Your task to perform on an android device: uninstall "PlayWell" Image 0: 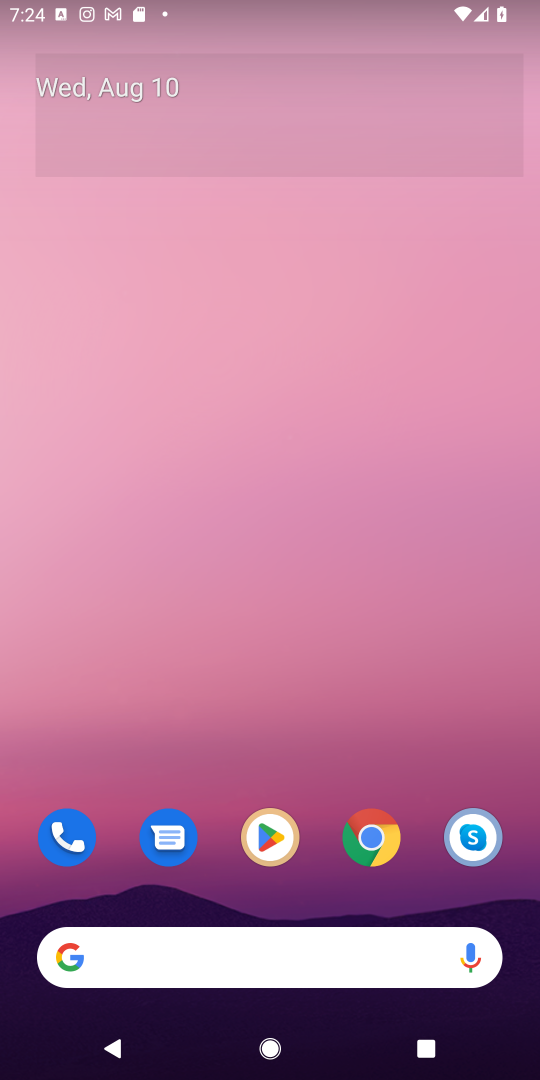
Step 0: click (266, 847)
Your task to perform on an android device: uninstall "PlayWell" Image 1: 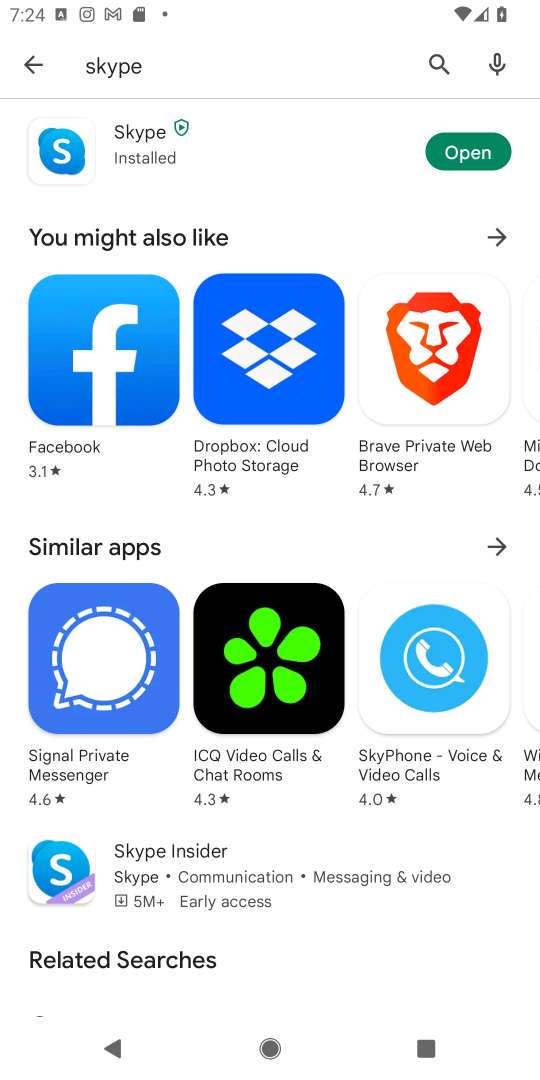
Step 1: click (431, 68)
Your task to perform on an android device: uninstall "PlayWell" Image 2: 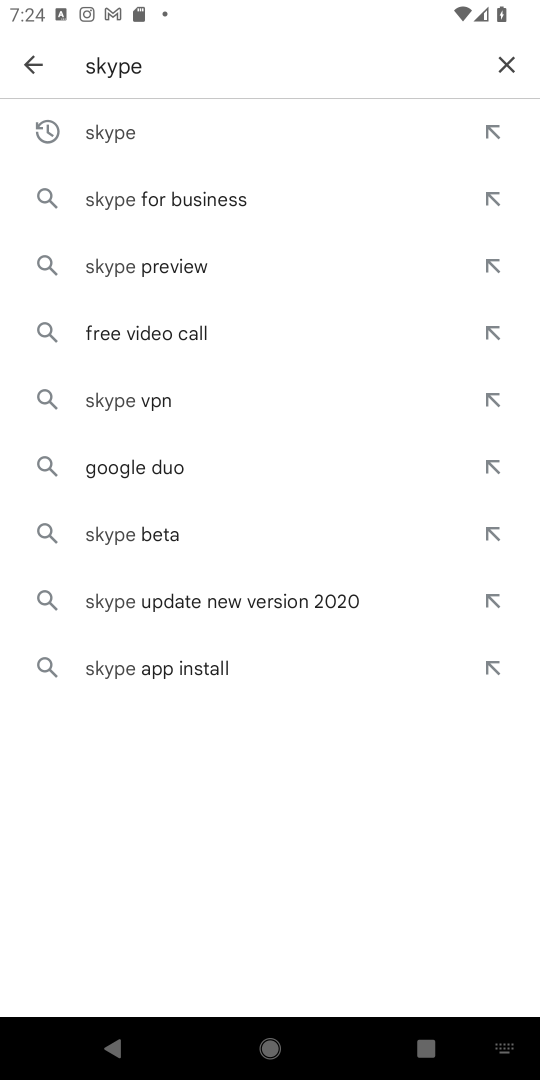
Step 2: click (499, 63)
Your task to perform on an android device: uninstall "PlayWell" Image 3: 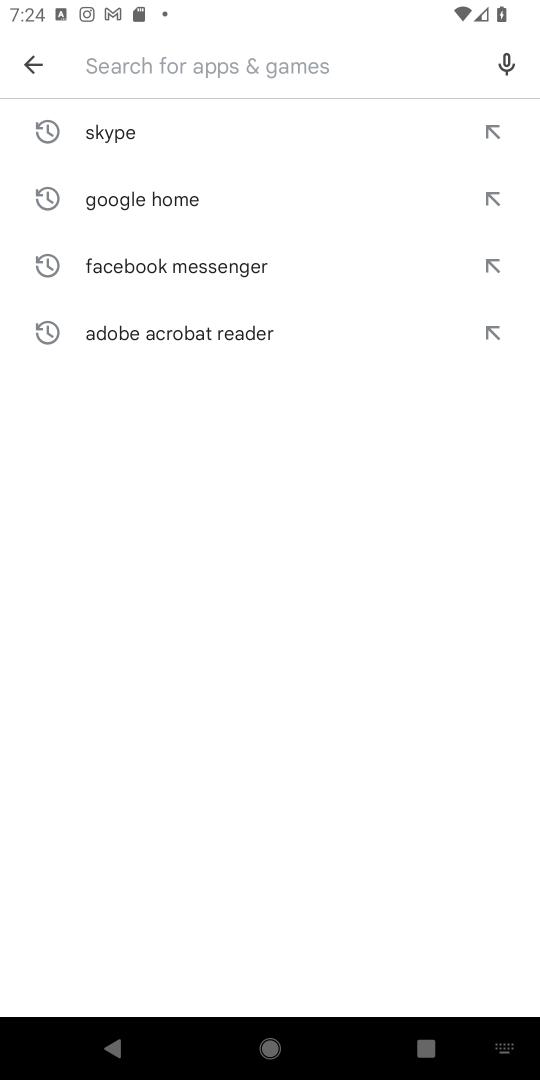
Step 3: type "PlayWell"
Your task to perform on an android device: uninstall "PlayWell" Image 4: 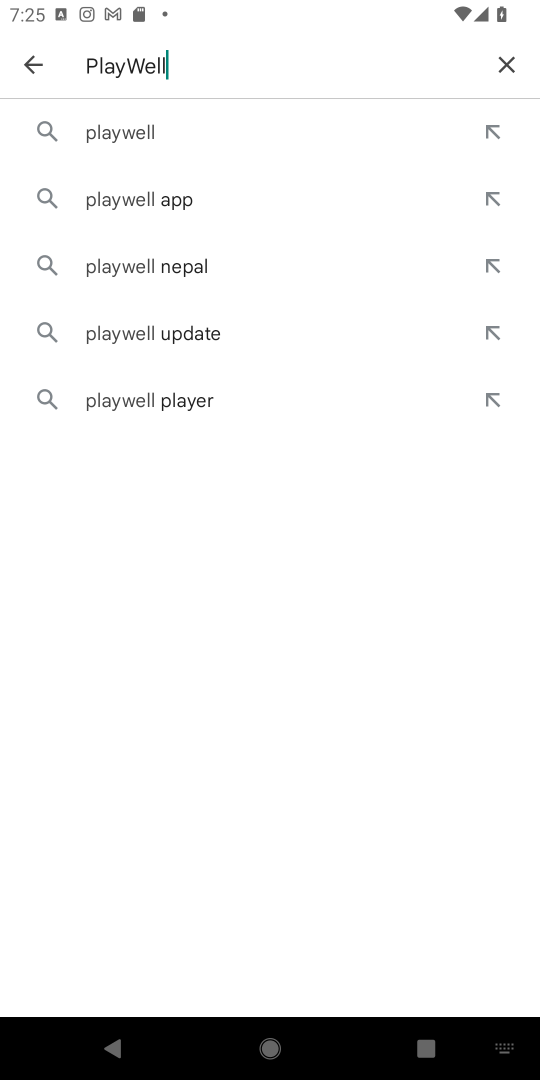
Step 4: click (125, 125)
Your task to perform on an android device: uninstall "PlayWell" Image 5: 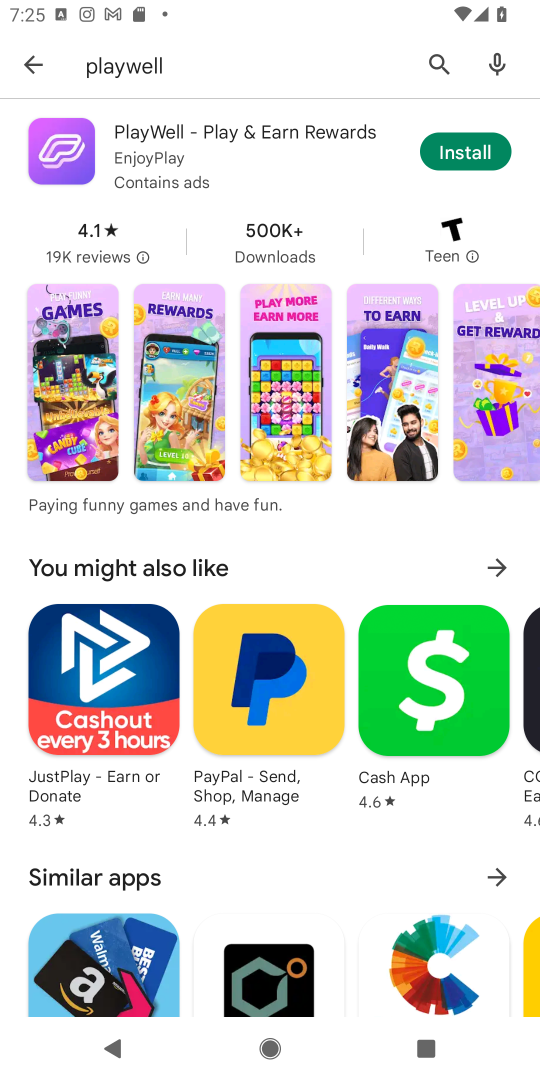
Step 5: task complete